Your task to perform on an android device: Open Chrome and go to settings Image 0: 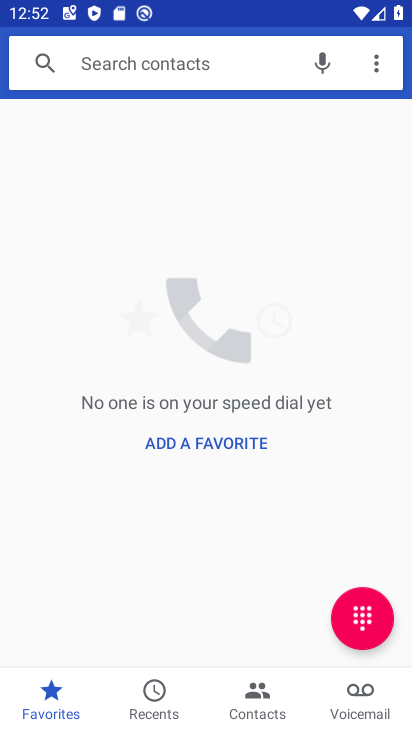
Step 0: press home button
Your task to perform on an android device: Open Chrome and go to settings Image 1: 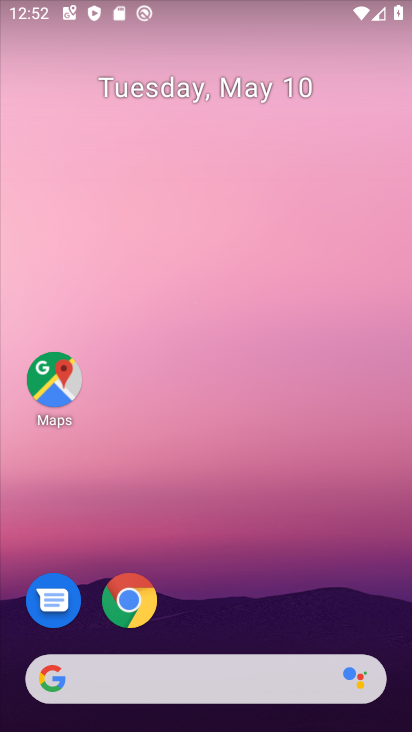
Step 1: click (140, 595)
Your task to perform on an android device: Open Chrome and go to settings Image 2: 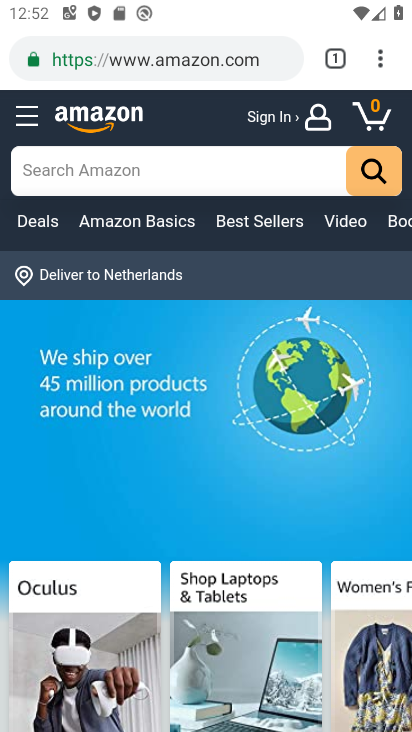
Step 2: click (393, 43)
Your task to perform on an android device: Open Chrome and go to settings Image 3: 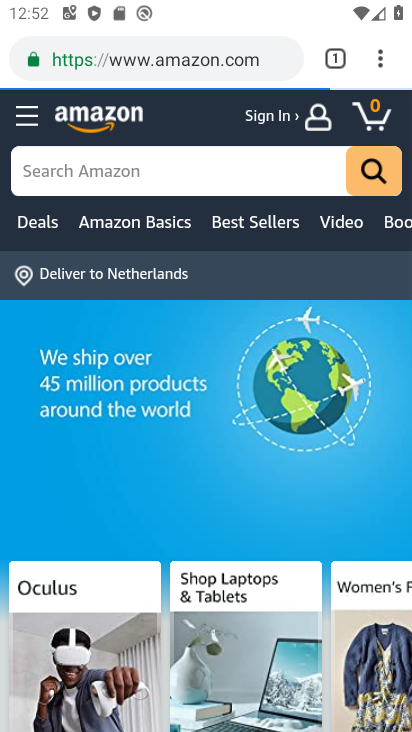
Step 3: task complete